Your task to perform on an android device: see tabs open on other devices in the chrome app Image 0: 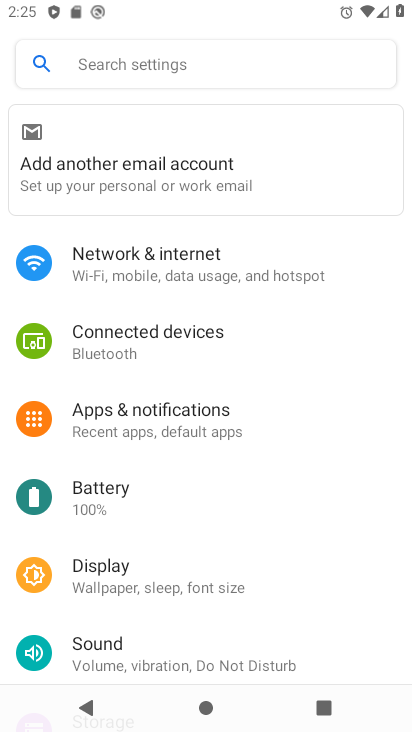
Step 0: press home button
Your task to perform on an android device: see tabs open on other devices in the chrome app Image 1: 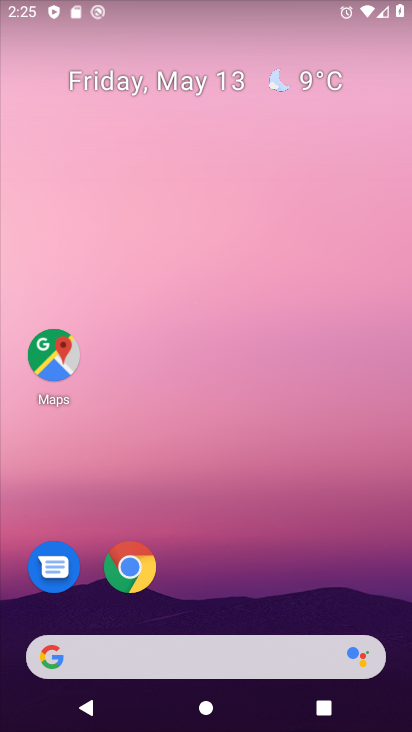
Step 1: drag from (213, 541) to (277, 12)
Your task to perform on an android device: see tabs open on other devices in the chrome app Image 2: 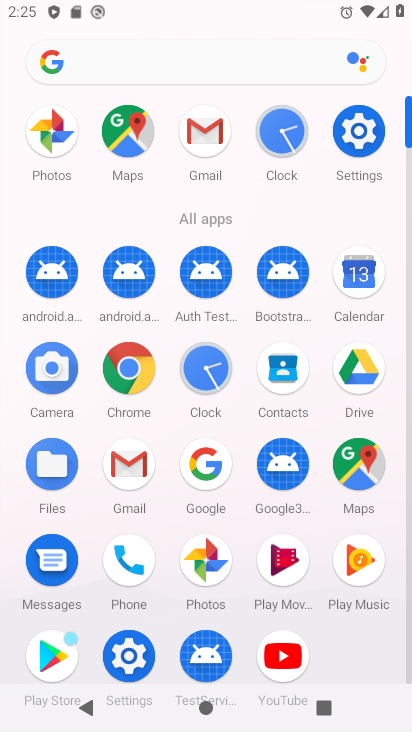
Step 2: click (133, 363)
Your task to perform on an android device: see tabs open on other devices in the chrome app Image 3: 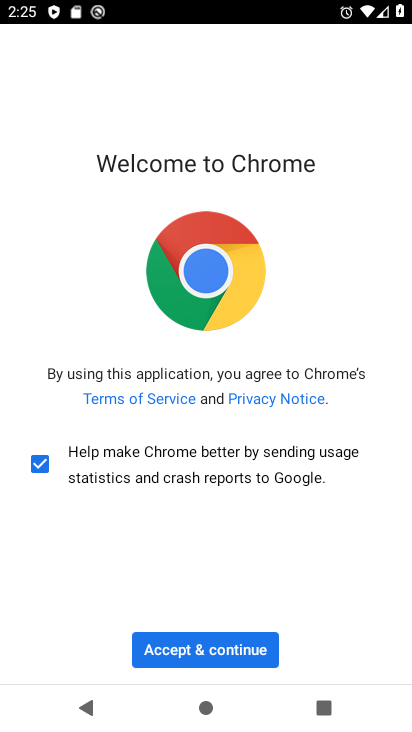
Step 3: click (227, 641)
Your task to perform on an android device: see tabs open on other devices in the chrome app Image 4: 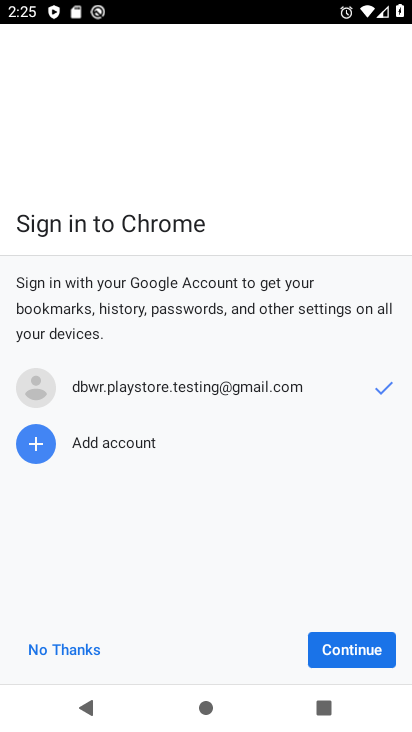
Step 4: click (334, 640)
Your task to perform on an android device: see tabs open on other devices in the chrome app Image 5: 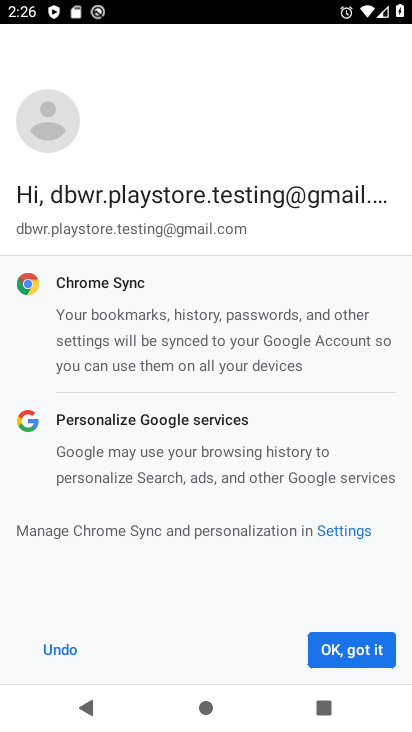
Step 5: click (337, 649)
Your task to perform on an android device: see tabs open on other devices in the chrome app Image 6: 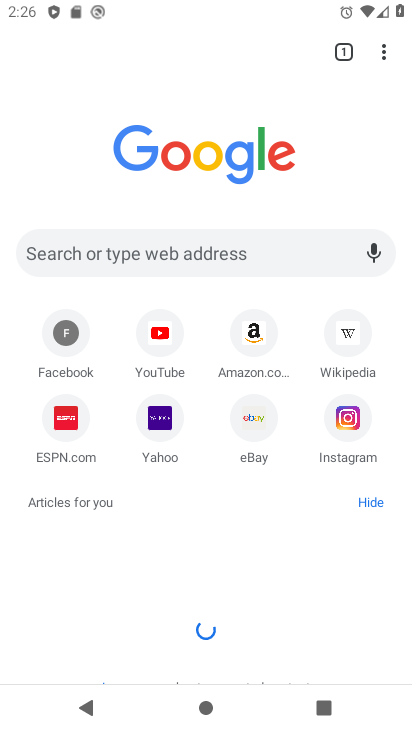
Step 6: click (390, 52)
Your task to perform on an android device: see tabs open on other devices in the chrome app Image 7: 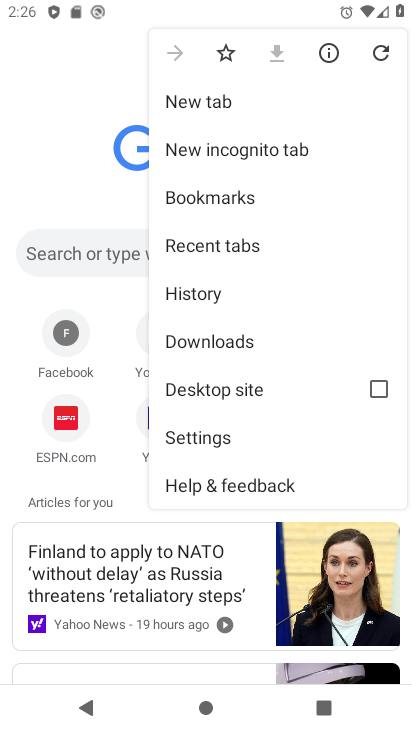
Step 7: click (222, 238)
Your task to perform on an android device: see tabs open on other devices in the chrome app Image 8: 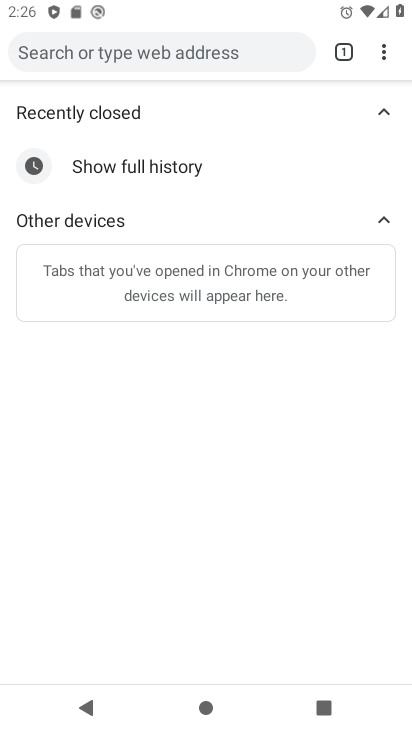
Step 8: task complete